Your task to perform on an android device: Search for sushi restaurants on Maps Image 0: 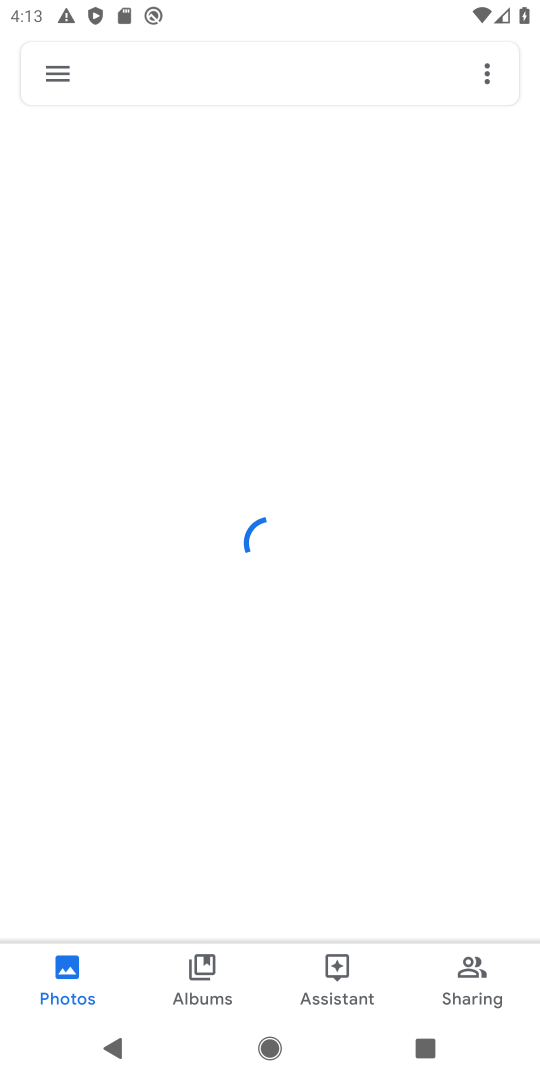
Step 0: press home button
Your task to perform on an android device: Search for sushi restaurants on Maps Image 1: 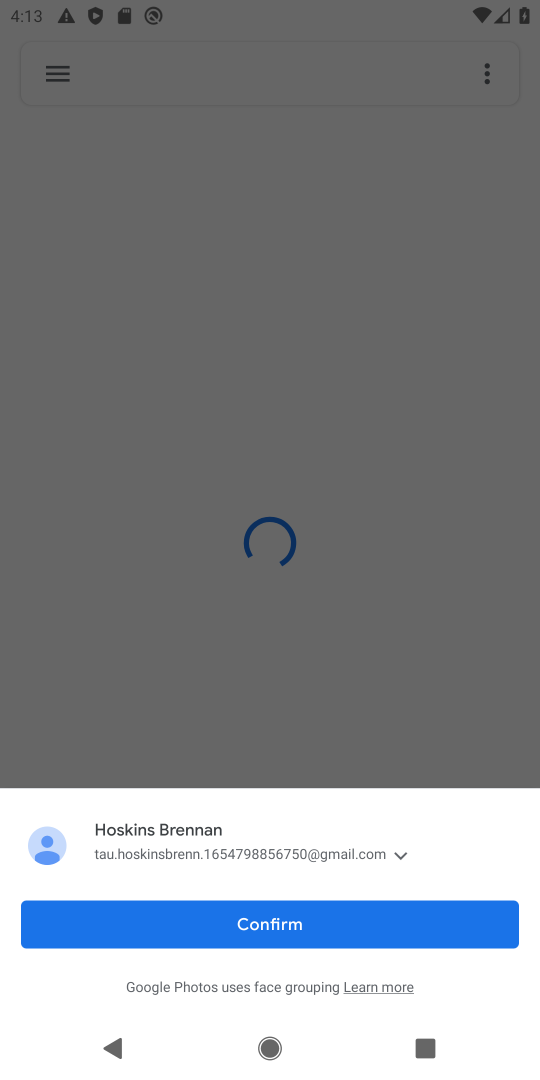
Step 1: press home button
Your task to perform on an android device: Search for sushi restaurants on Maps Image 2: 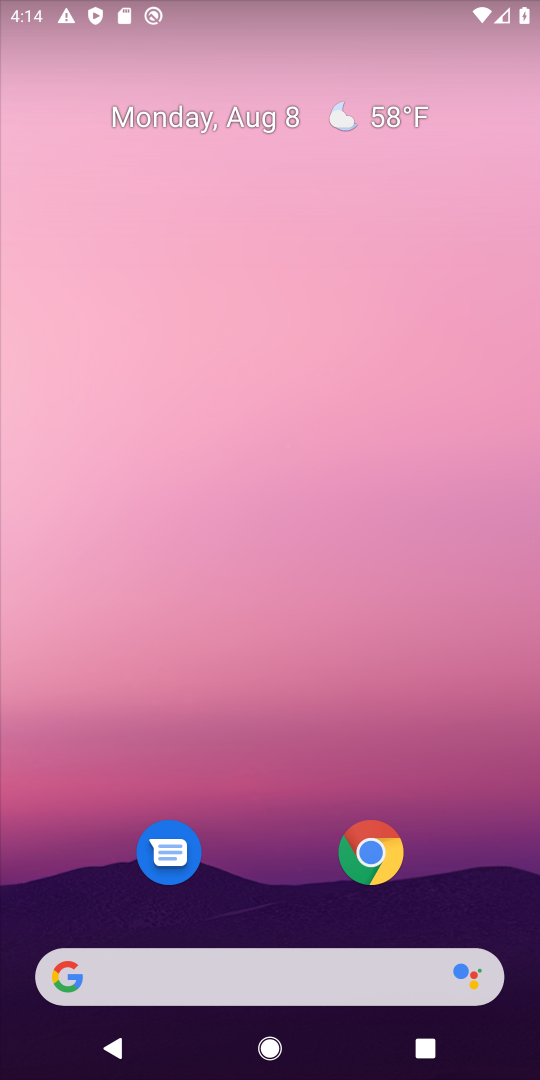
Step 2: drag from (231, 840) to (389, 173)
Your task to perform on an android device: Search for sushi restaurants on Maps Image 3: 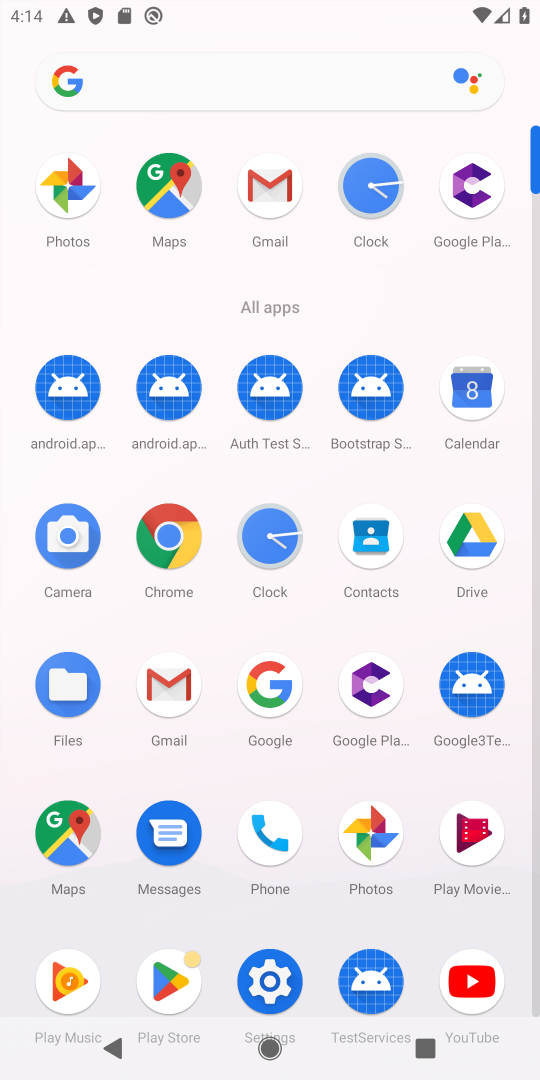
Step 3: click (57, 838)
Your task to perform on an android device: Search for sushi restaurants on Maps Image 4: 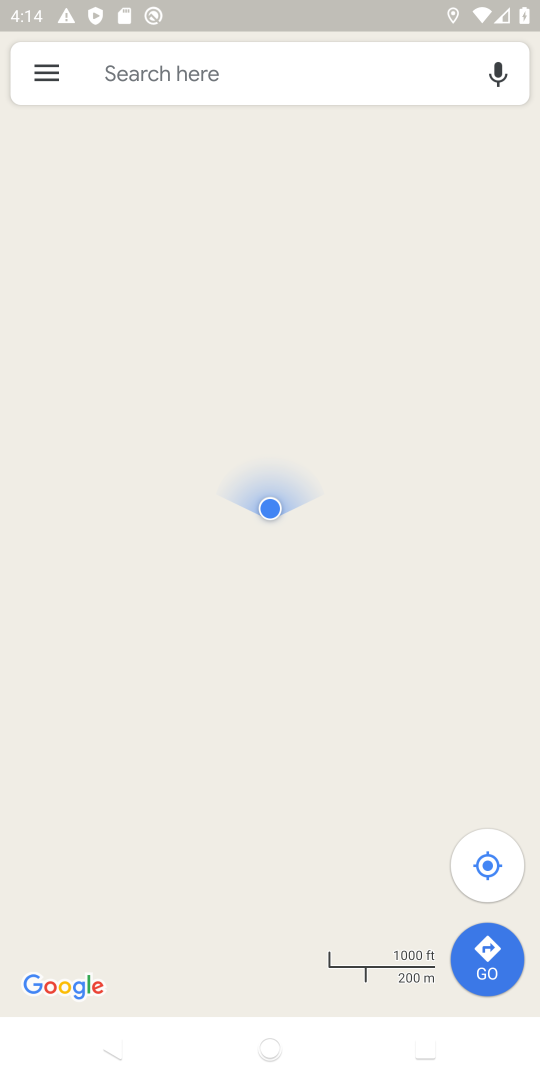
Step 4: click (331, 67)
Your task to perform on an android device: Search for sushi restaurants on Maps Image 5: 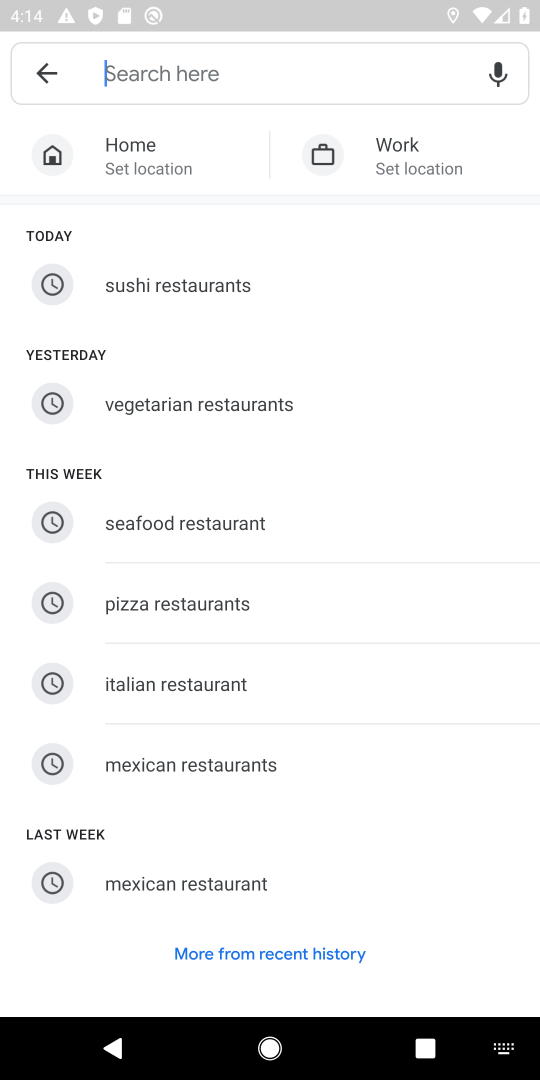
Step 5: click (206, 286)
Your task to perform on an android device: Search for sushi restaurants on Maps Image 6: 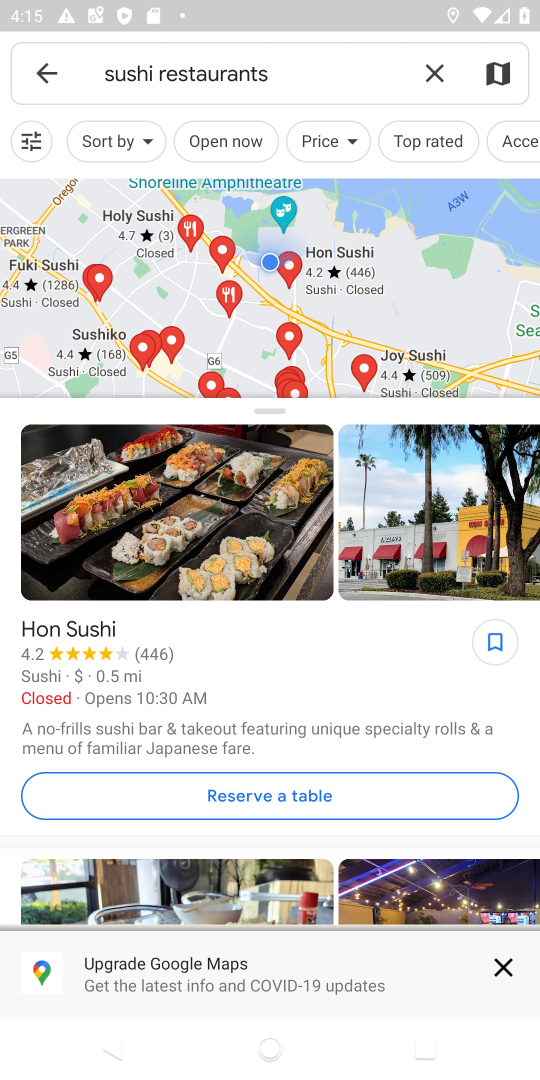
Step 6: task complete